Your task to perform on an android device: allow cookies in the chrome app Image 0: 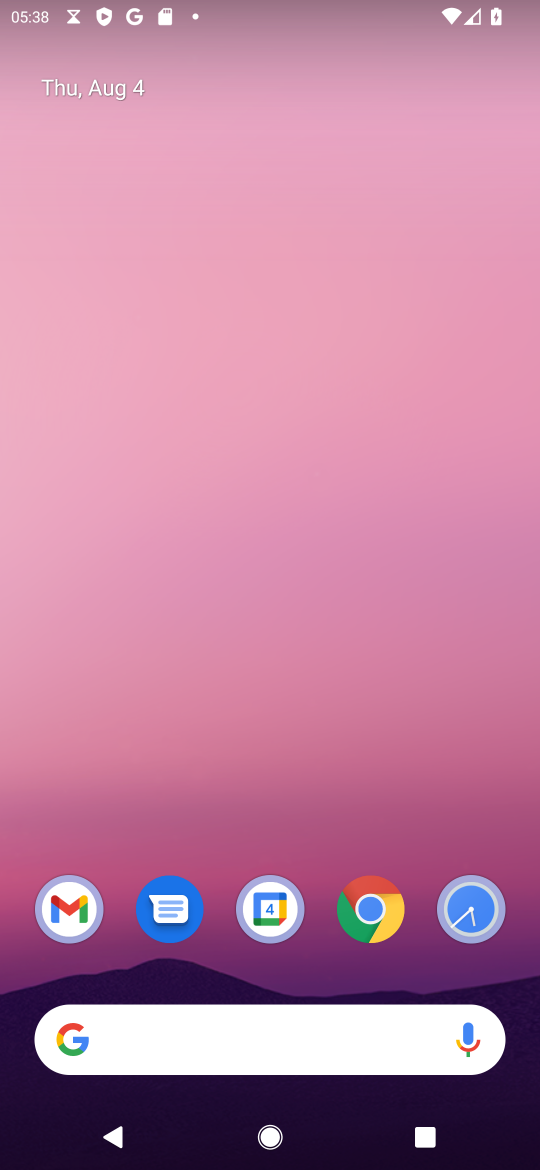
Step 0: click (370, 914)
Your task to perform on an android device: allow cookies in the chrome app Image 1: 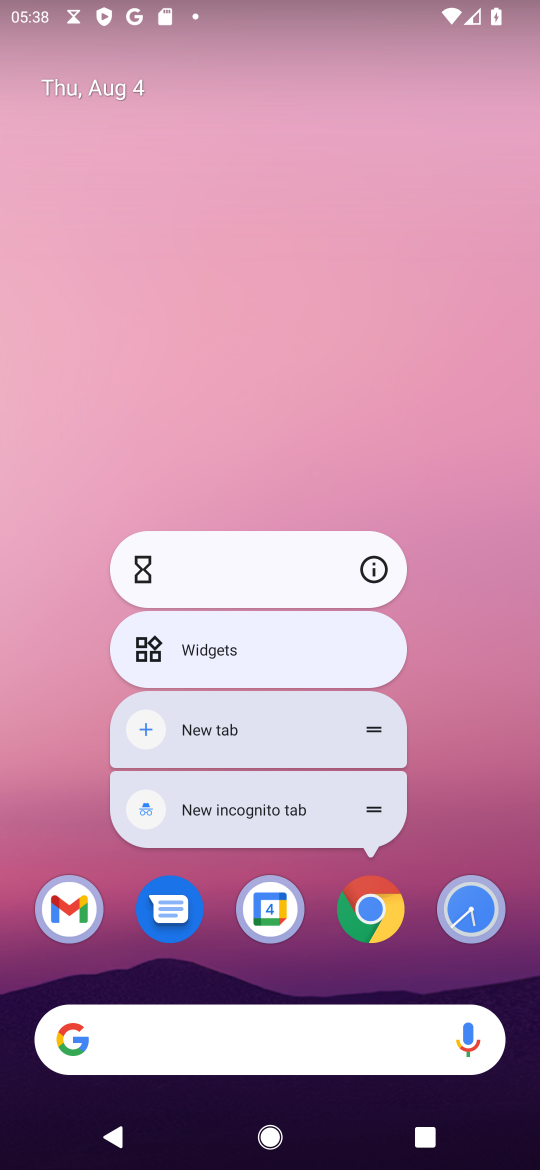
Step 1: click (370, 913)
Your task to perform on an android device: allow cookies in the chrome app Image 2: 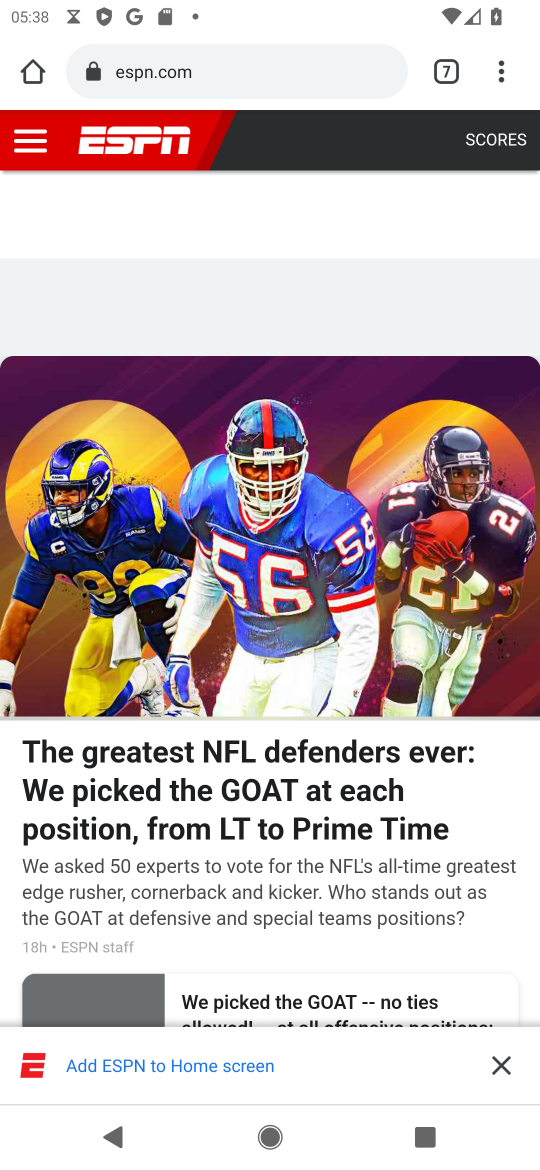
Step 2: drag from (499, 71) to (302, 989)
Your task to perform on an android device: allow cookies in the chrome app Image 3: 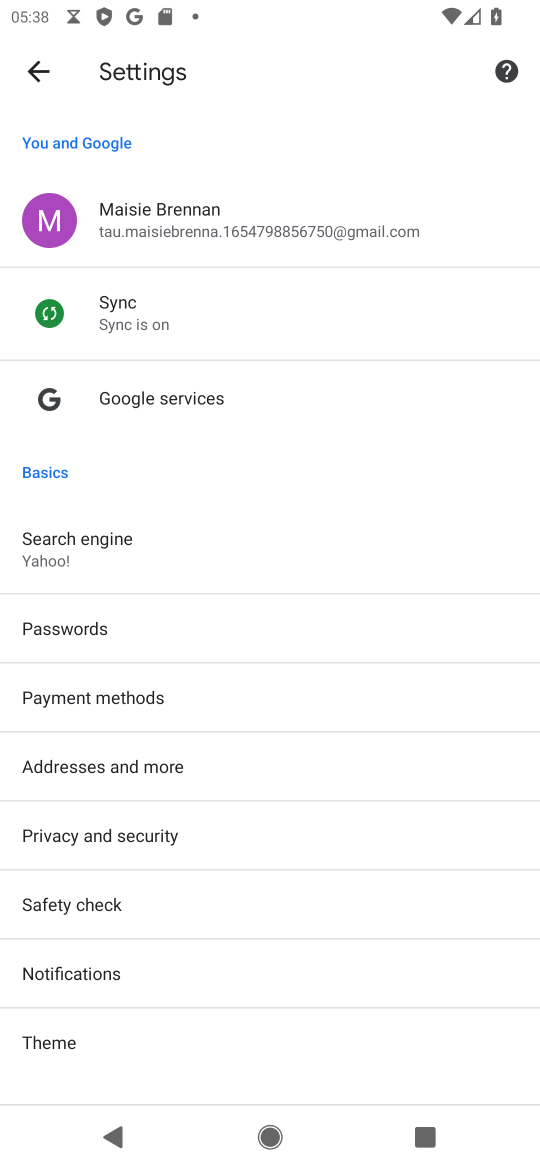
Step 3: drag from (177, 1014) to (323, 294)
Your task to perform on an android device: allow cookies in the chrome app Image 4: 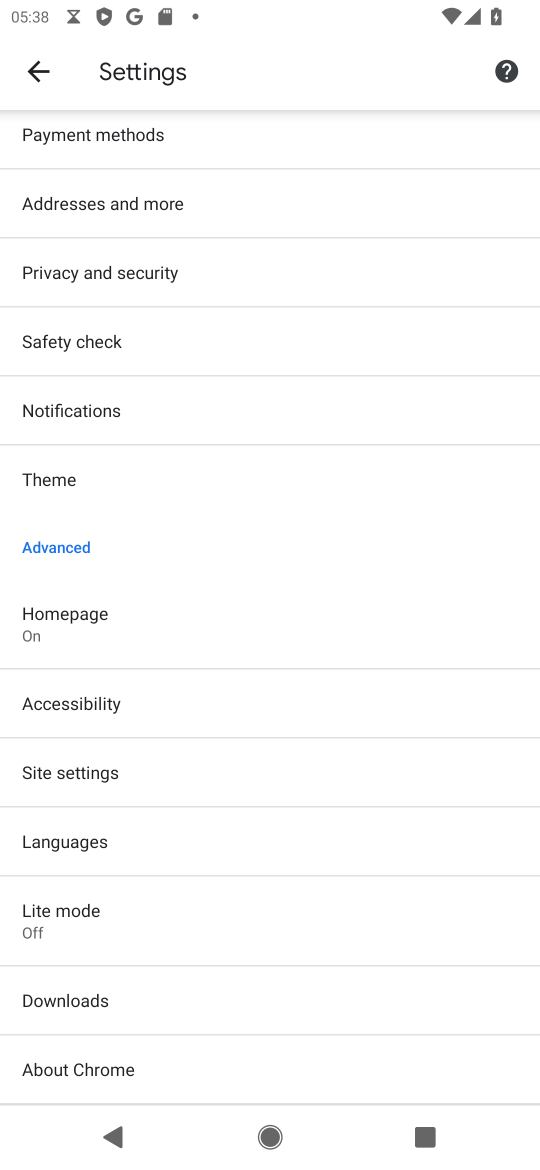
Step 4: click (117, 777)
Your task to perform on an android device: allow cookies in the chrome app Image 5: 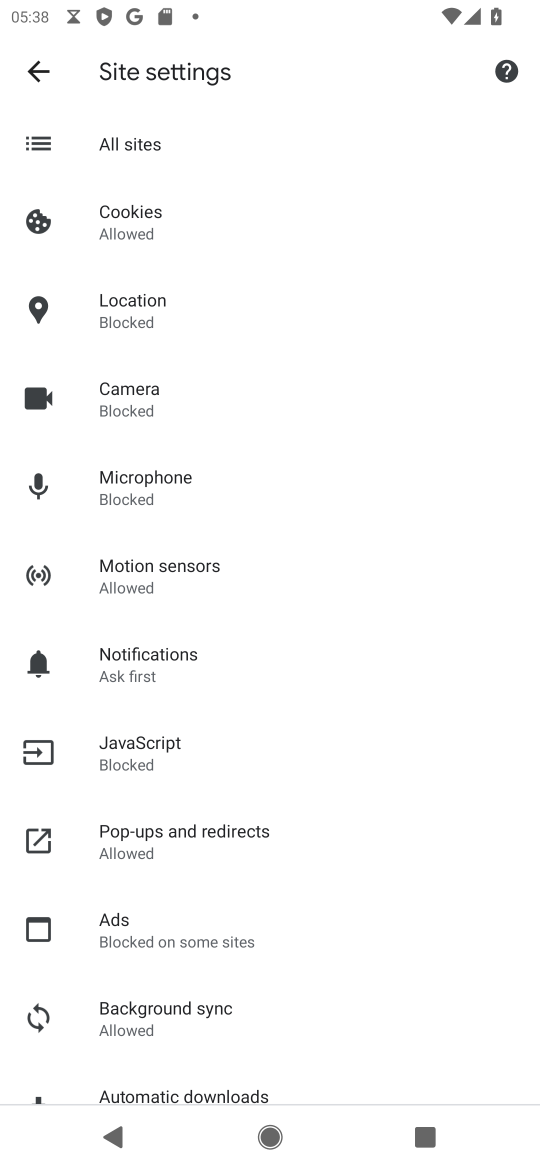
Step 5: click (140, 215)
Your task to perform on an android device: allow cookies in the chrome app Image 6: 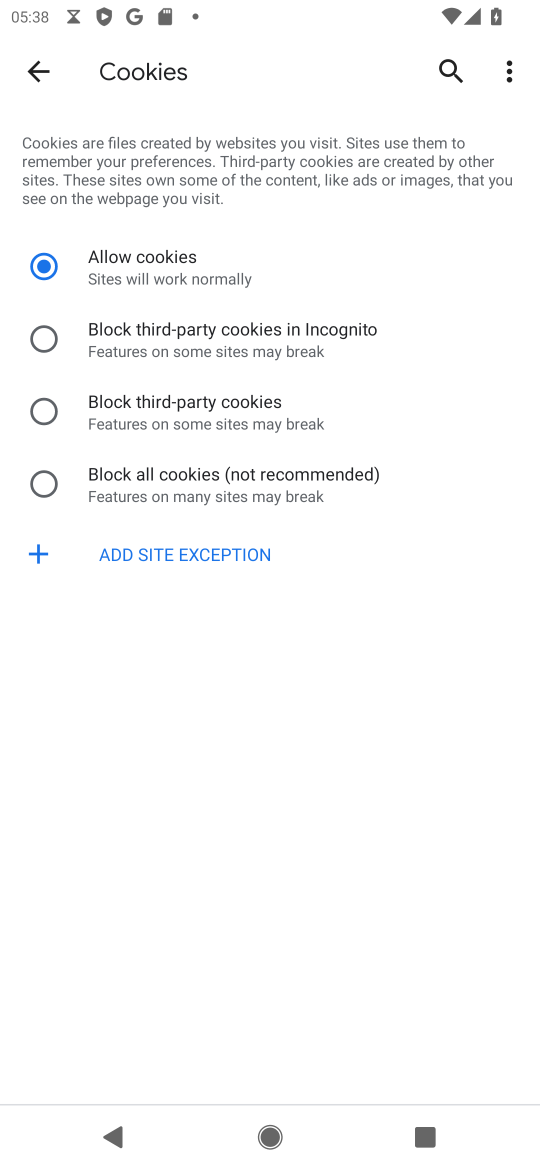
Step 6: task complete